Your task to perform on an android device: What's the weather today? Image 0: 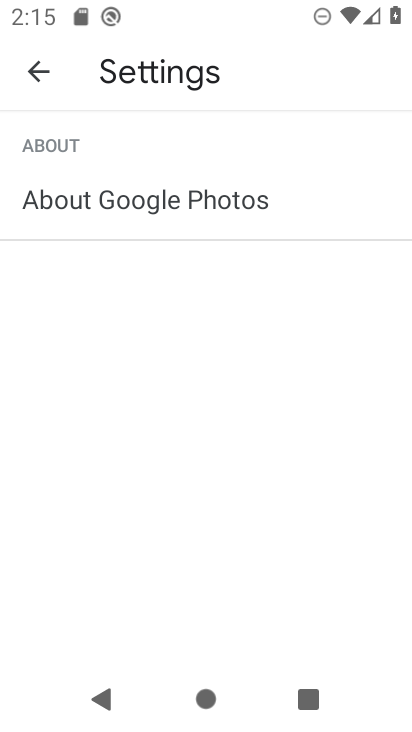
Step 0: press home button
Your task to perform on an android device: What's the weather today? Image 1: 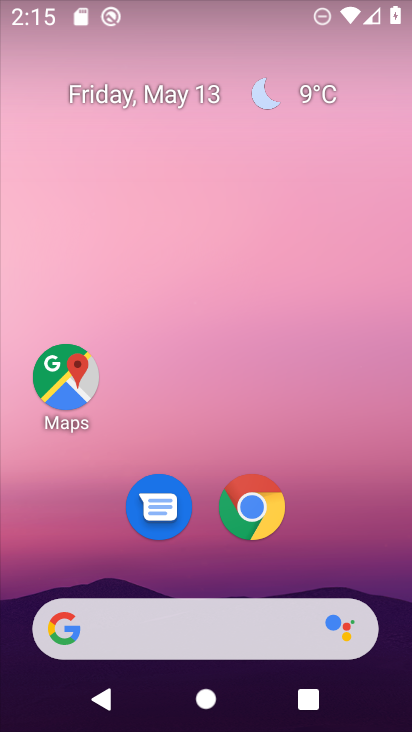
Step 1: click (314, 102)
Your task to perform on an android device: What's the weather today? Image 2: 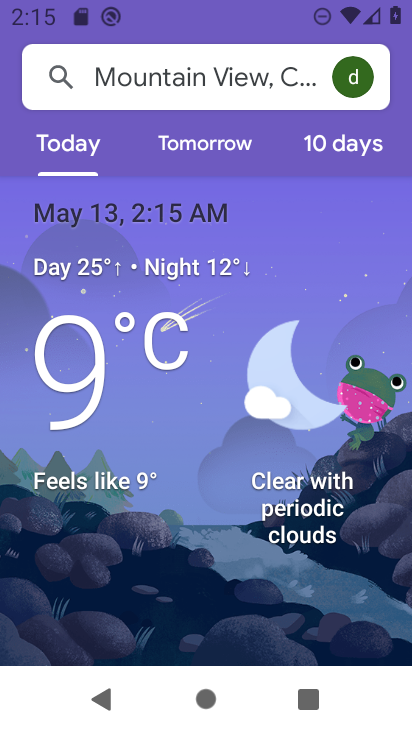
Step 2: task complete